Your task to perform on an android device: turn off improve location accuracy Image 0: 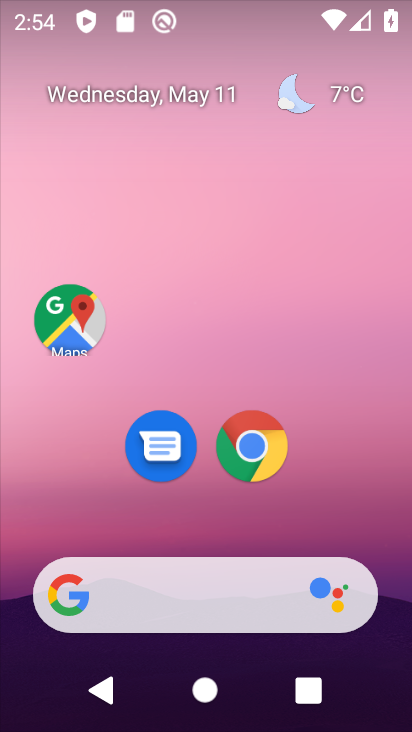
Step 0: drag from (391, 571) to (250, 177)
Your task to perform on an android device: turn off improve location accuracy Image 1: 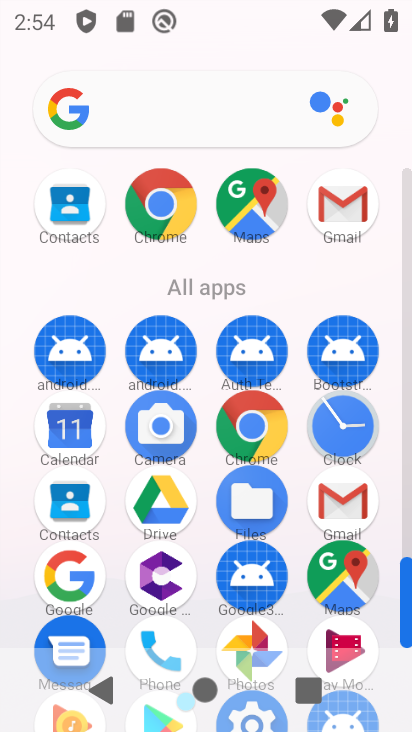
Step 1: drag from (302, 581) to (271, 349)
Your task to perform on an android device: turn off improve location accuracy Image 2: 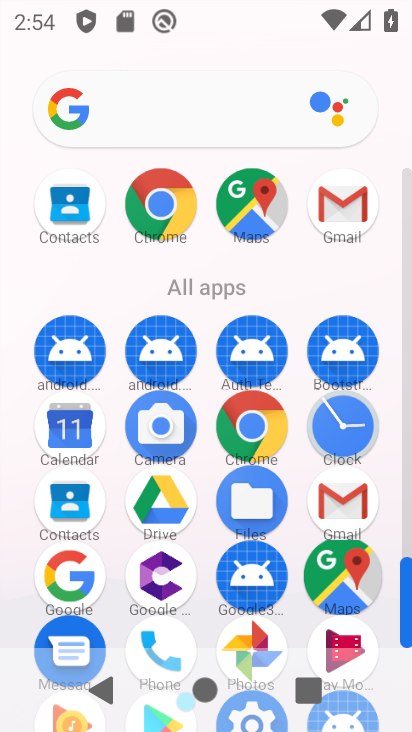
Step 2: drag from (328, 487) to (315, 272)
Your task to perform on an android device: turn off improve location accuracy Image 3: 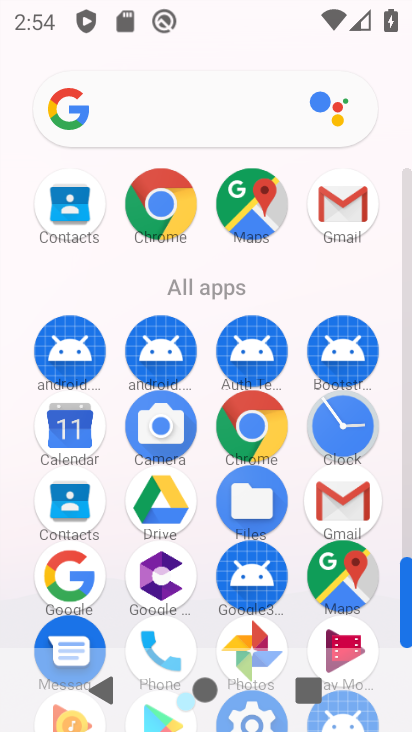
Step 3: drag from (295, 495) to (269, 276)
Your task to perform on an android device: turn off improve location accuracy Image 4: 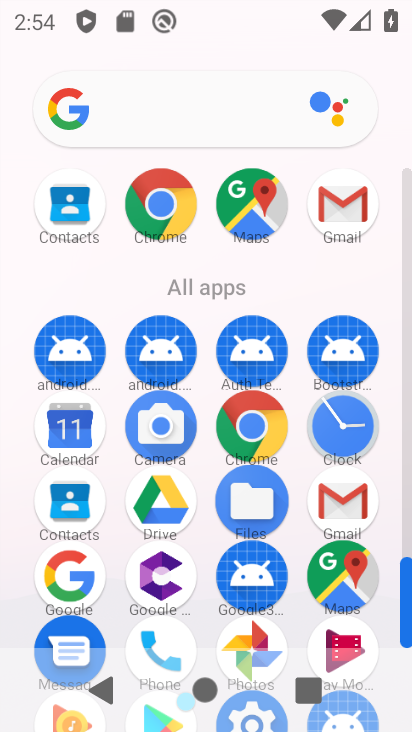
Step 4: drag from (265, 573) to (297, 232)
Your task to perform on an android device: turn off improve location accuracy Image 5: 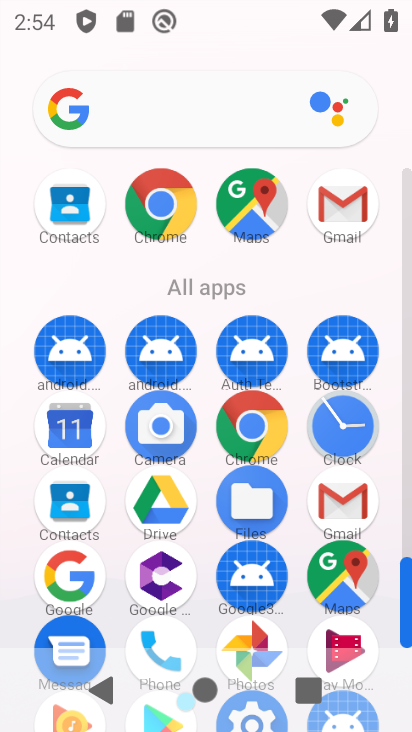
Step 5: drag from (270, 600) to (289, 263)
Your task to perform on an android device: turn off improve location accuracy Image 6: 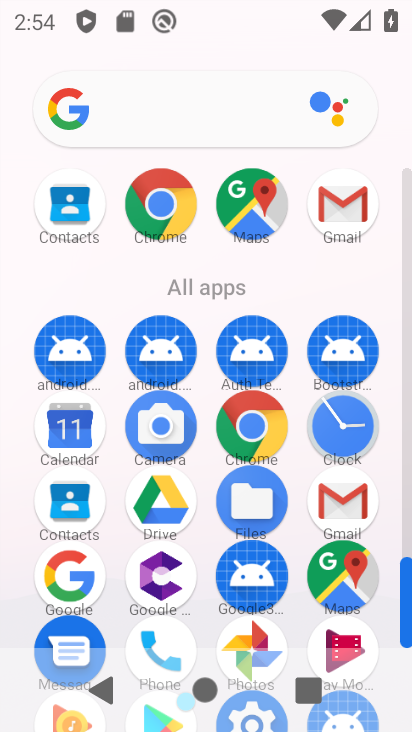
Step 6: drag from (171, 613) to (158, 303)
Your task to perform on an android device: turn off improve location accuracy Image 7: 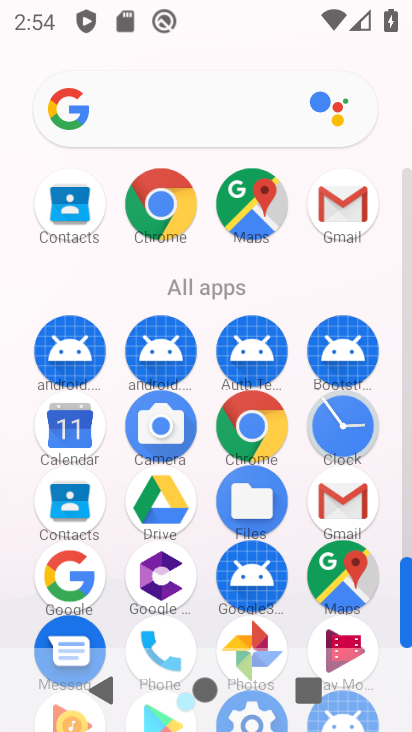
Step 7: drag from (213, 642) to (214, 322)
Your task to perform on an android device: turn off improve location accuracy Image 8: 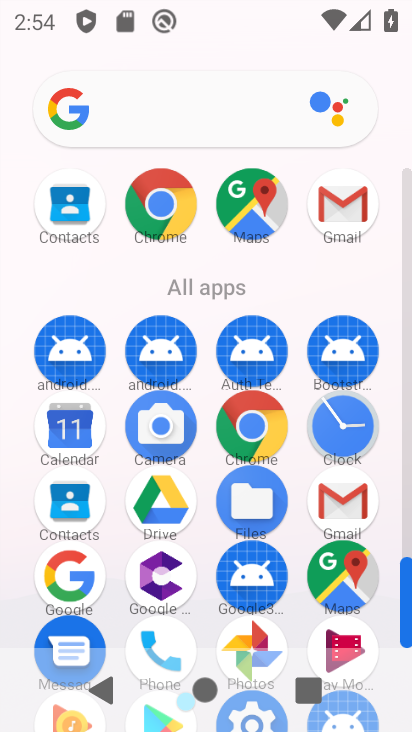
Step 8: drag from (280, 606) to (245, 388)
Your task to perform on an android device: turn off improve location accuracy Image 9: 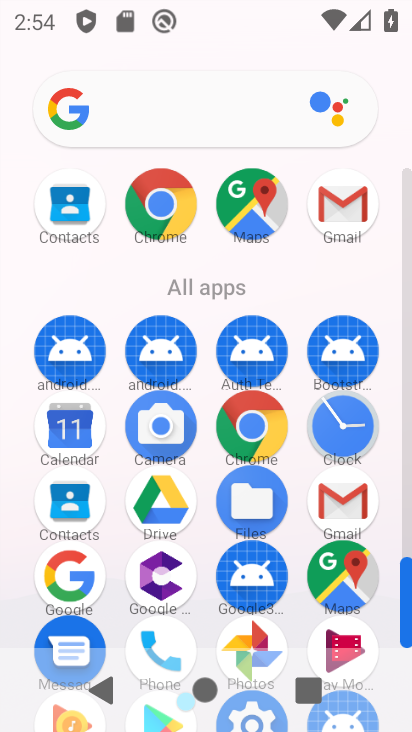
Step 9: drag from (279, 568) to (272, 369)
Your task to perform on an android device: turn off improve location accuracy Image 10: 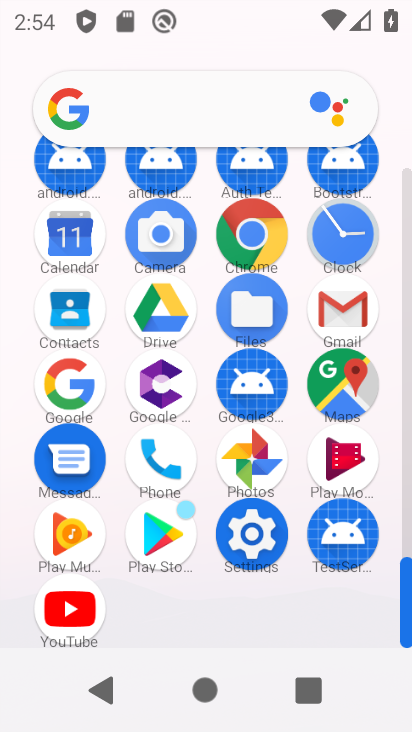
Step 10: drag from (295, 671) to (290, 414)
Your task to perform on an android device: turn off improve location accuracy Image 11: 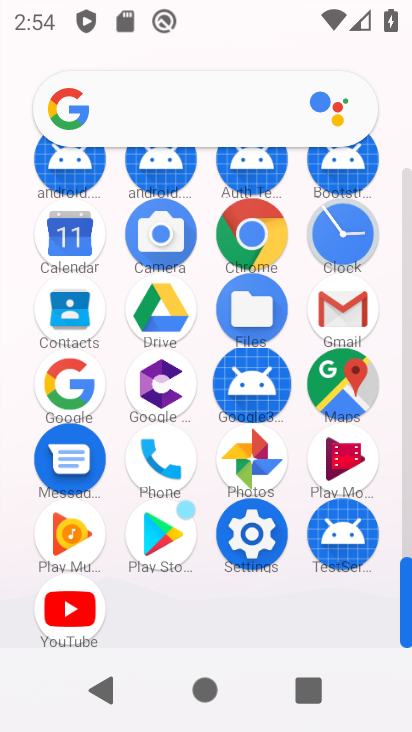
Step 11: click (251, 542)
Your task to perform on an android device: turn off improve location accuracy Image 12: 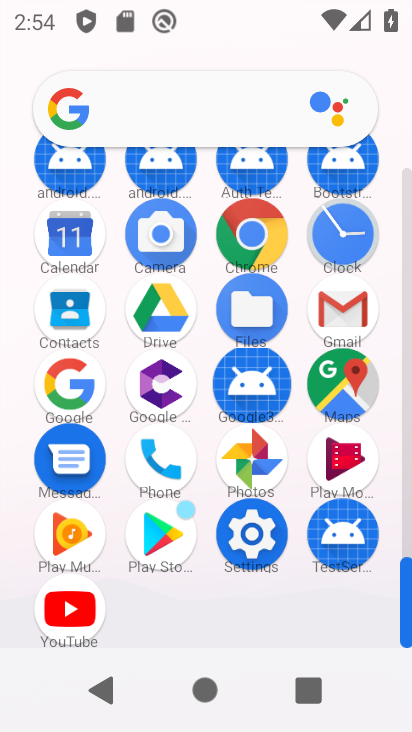
Step 12: click (253, 543)
Your task to perform on an android device: turn off improve location accuracy Image 13: 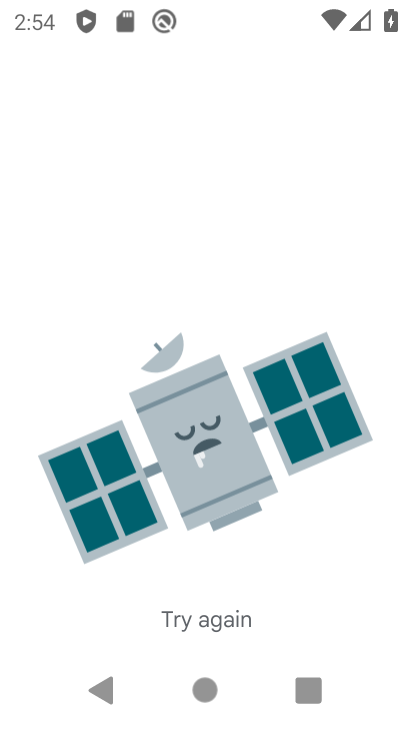
Step 13: task complete